Your task to perform on an android device: add a contact Image 0: 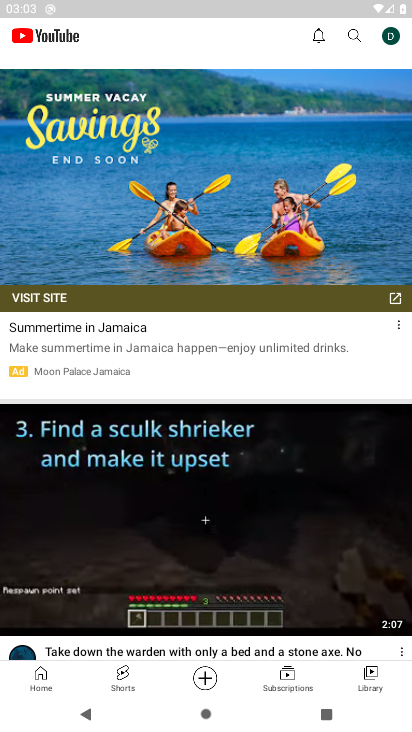
Step 0: press home button
Your task to perform on an android device: add a contact Image 1: 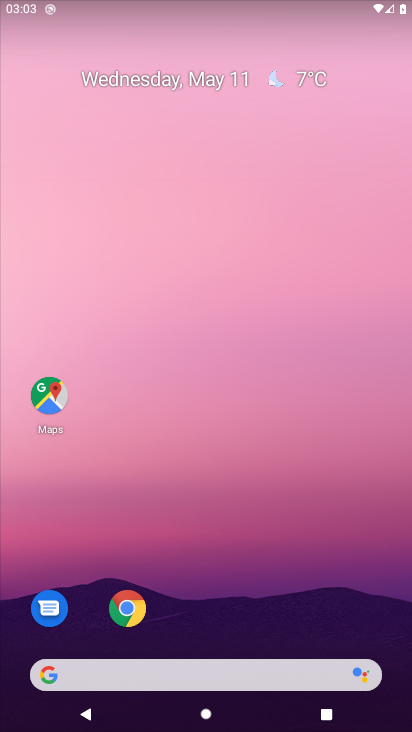
Step 1: drag from (219, 618) to (223, 334)
Your task to perform on an android device: add a contact Image 2: 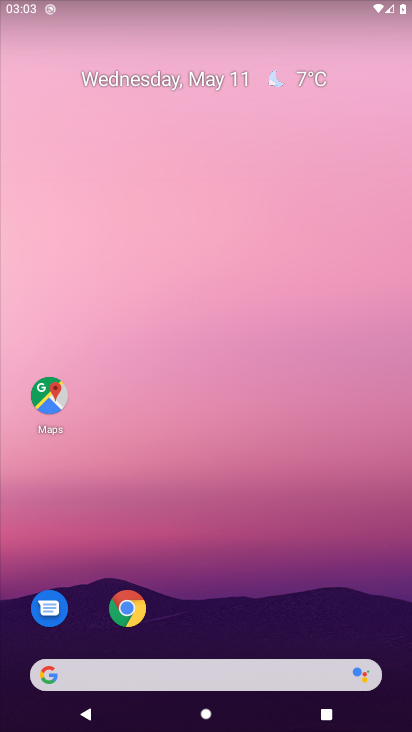
Step 2: drag from (211, 637) to (200, 137)
Your task to perform on an android device: add a contact Image 3: 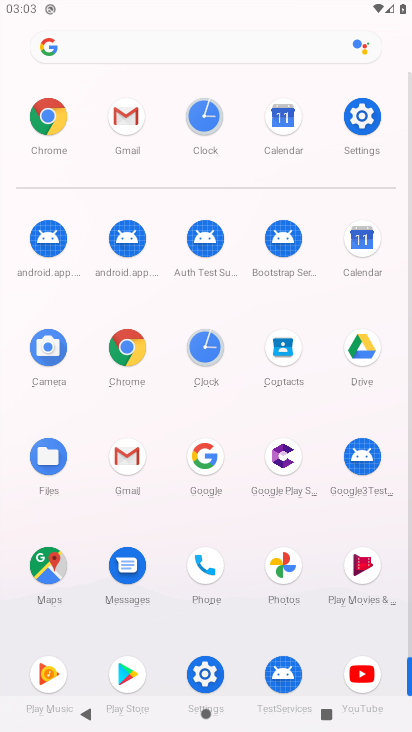
Step 3: click (280, 343)
Your task to perform on an android device: add a contact Image 4: 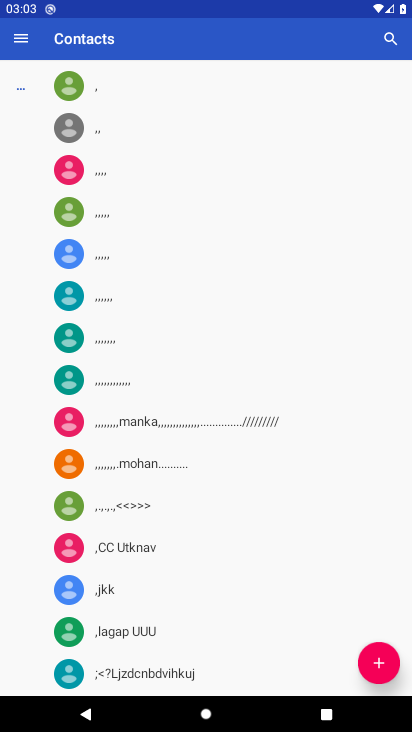
Step 4: press home button
Your task to perform on an android device: add a contact Image 5: 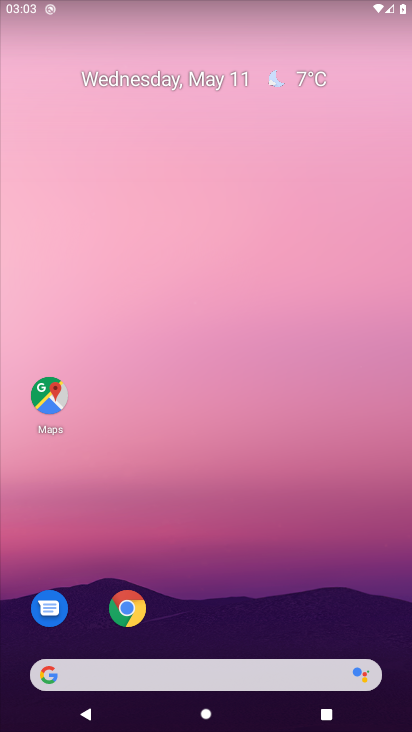
Step 5: drag from (223, 636) to (272, 133)
Your task to perform on an android device: add a contact Image 6: 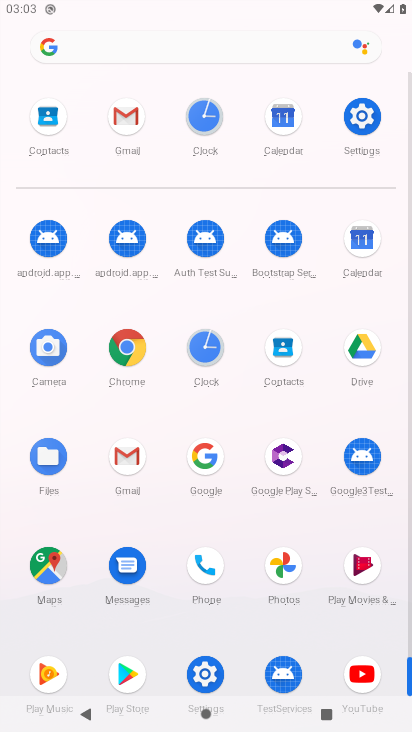
Step 6: click (283, 347)
Your task to perform on an android device: add a contact Image 7: 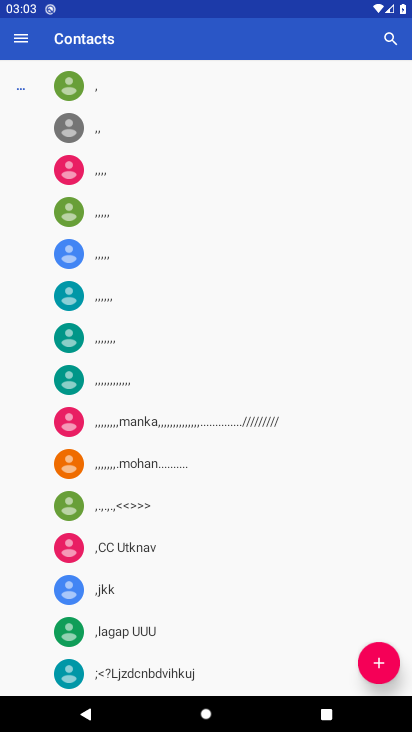
Step 7: click (381, 660)
Your task to perform on an android device: add a contact Image 8: 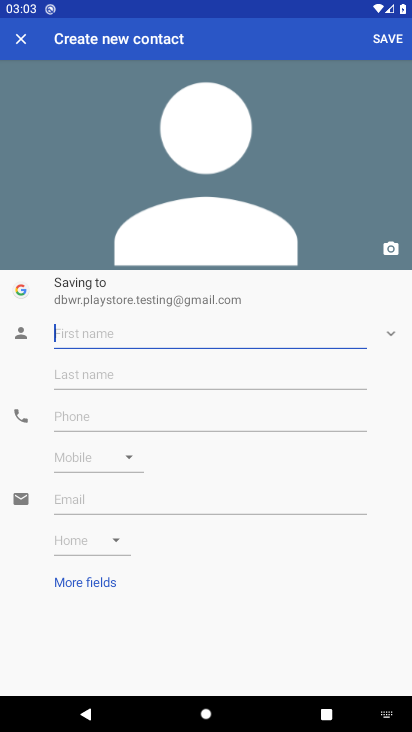
Step 8: type "fsresghg"
Your task to perform on an android device: add a contact Image 9: 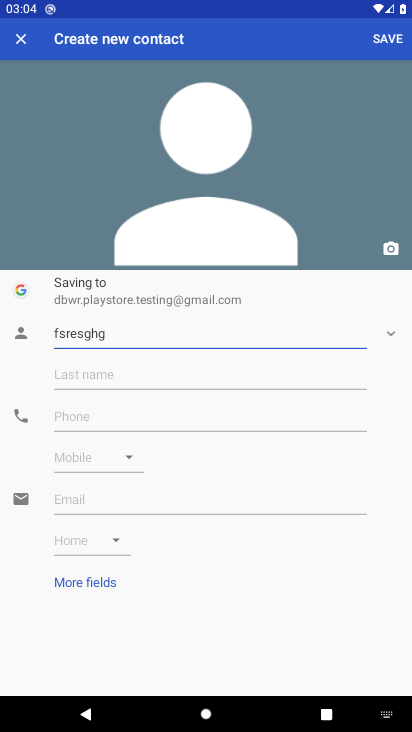
Step 9: click (391, 35)
Your task to perform on an android device: add a contact Image 10: 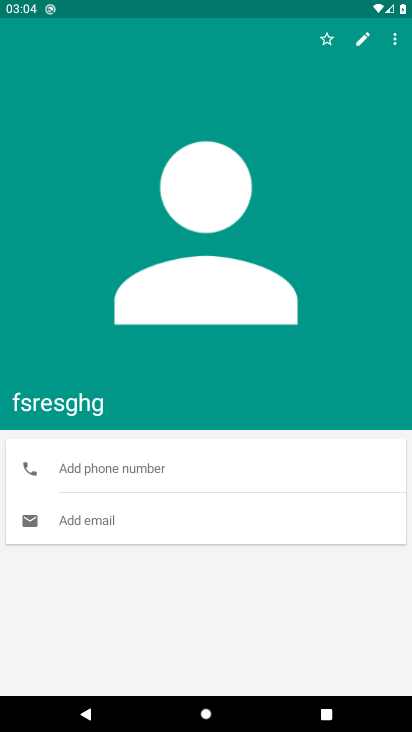
Step 10: task complete